Your task to perform on an android device: empty trash in the gmail app Image 0: 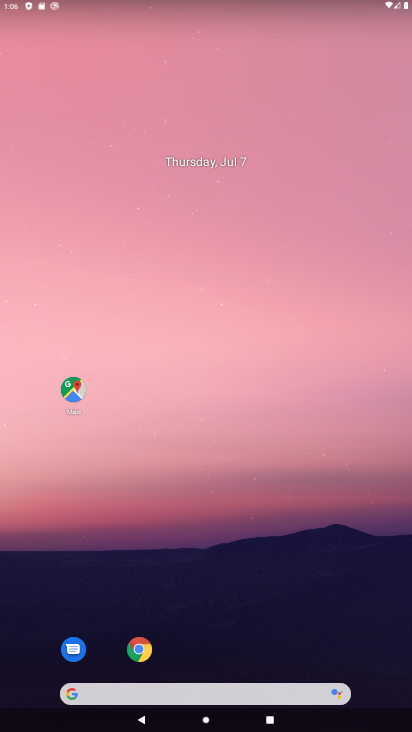
Step 0: drag from (269, 580) to (206, 249)
Your task to perform on an android device: empty trash in the gmail app Image 1: 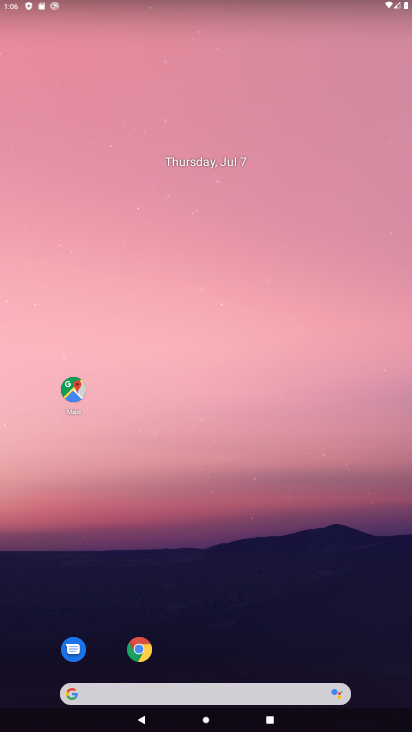
Step 1: drag from (297, 666) to (265, 213)
Your task to perform on an android device: empty trash in the gmail app Image 2: 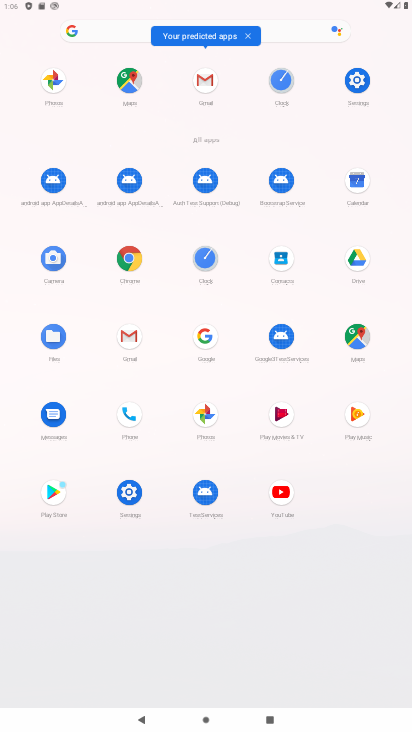
Step 2: click (135, 329)
Your task to perform on an android device: empty trash in the gmail app Image 3: 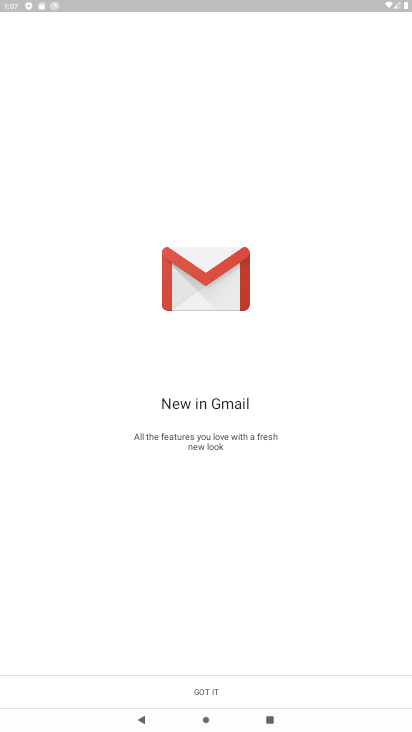
Step 3: click (236, 684)
Your task to perform on an android device: empty trash in the gmail app Image 4: 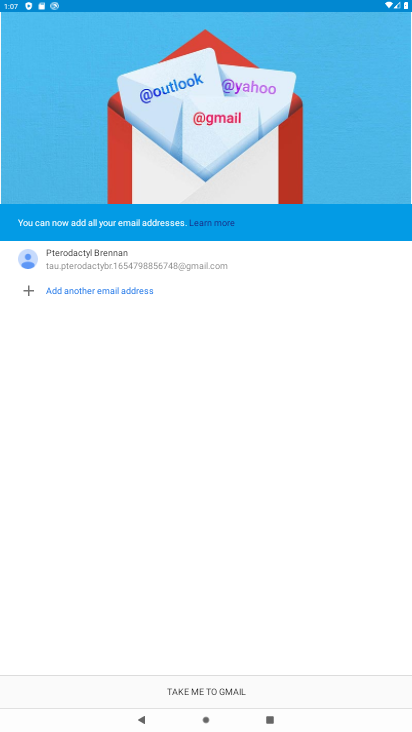
Step 4: click (236, 684)
Your task to perform on an android device: empty trash in the gmail app Image 5: 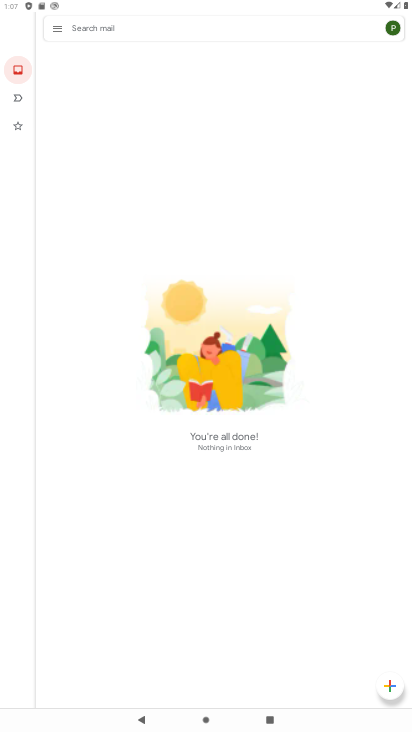
Step 5: click (57, 25)
Your task to perform on an android device: empty trash in the gmail app Image 6: 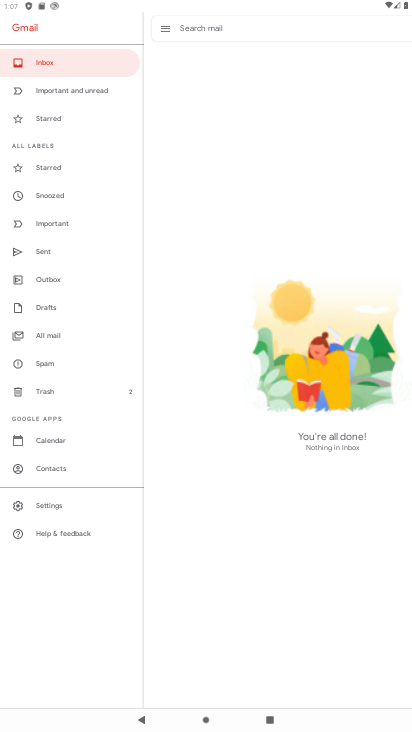
Step 6: click (56, 387)
Your task to perform on an android device: empty trash in the gmail app Image 7: 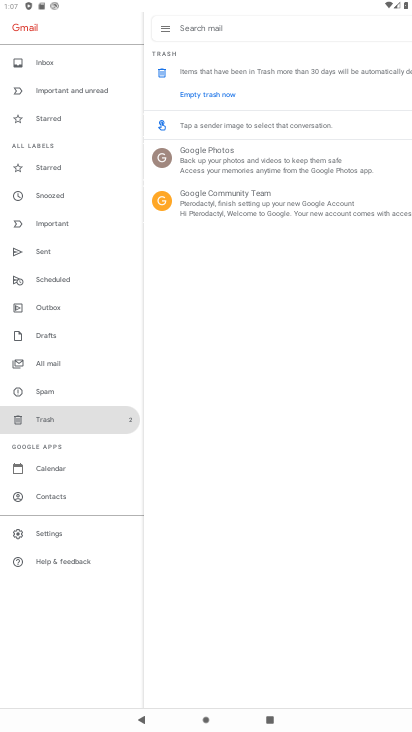
Step 7: click (181, 91)
Your task to perform on an android device: empty trash in the gmail app Image 8: 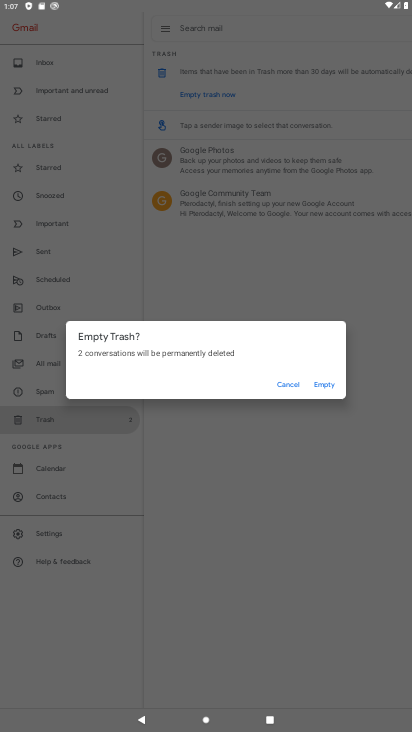
Step 8: click (320, 378)
Your task to perform on an android device: empty trash in the gmail app Image 9: 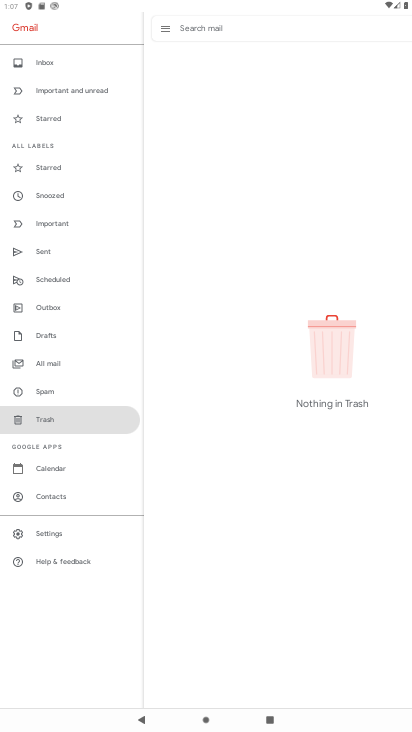
Step 9: task complete